Your task to perform on an android device: Open internet settings Image 0: 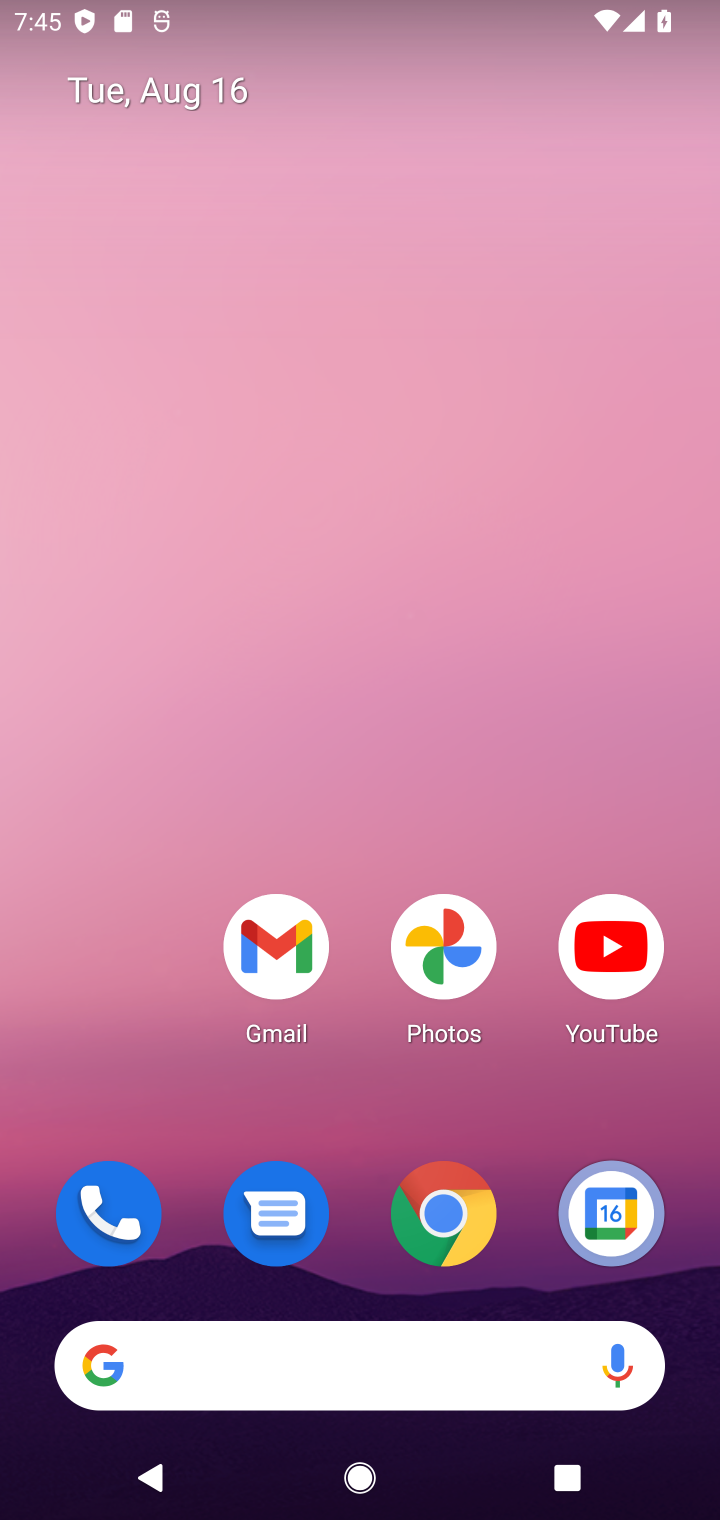
Step 0: drag from (344, 1285) to (507, 83)
Your task to perform on an android device: Open internet settings Image 1: 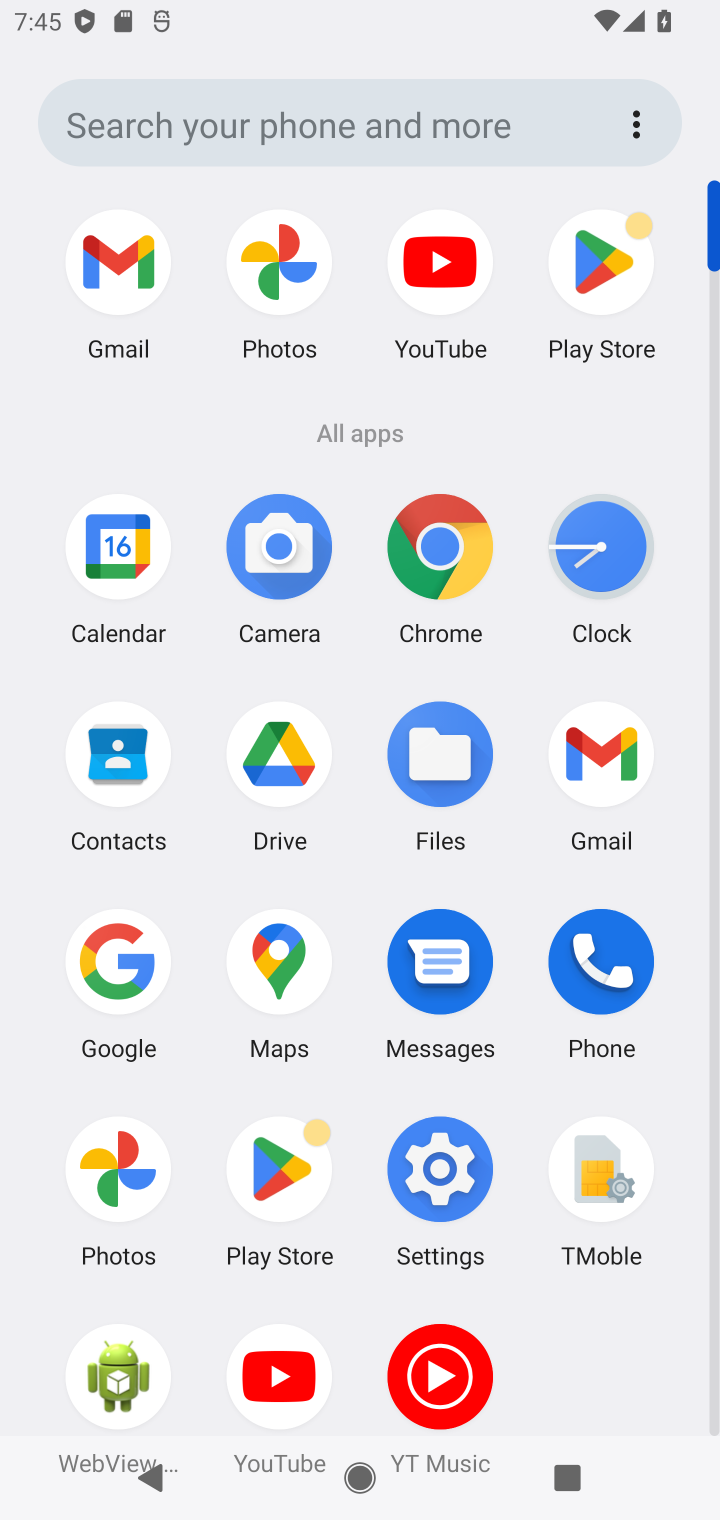
Step 1: click (438, 1157)
Your task to perform on an android device: Open internet settings Image 2: 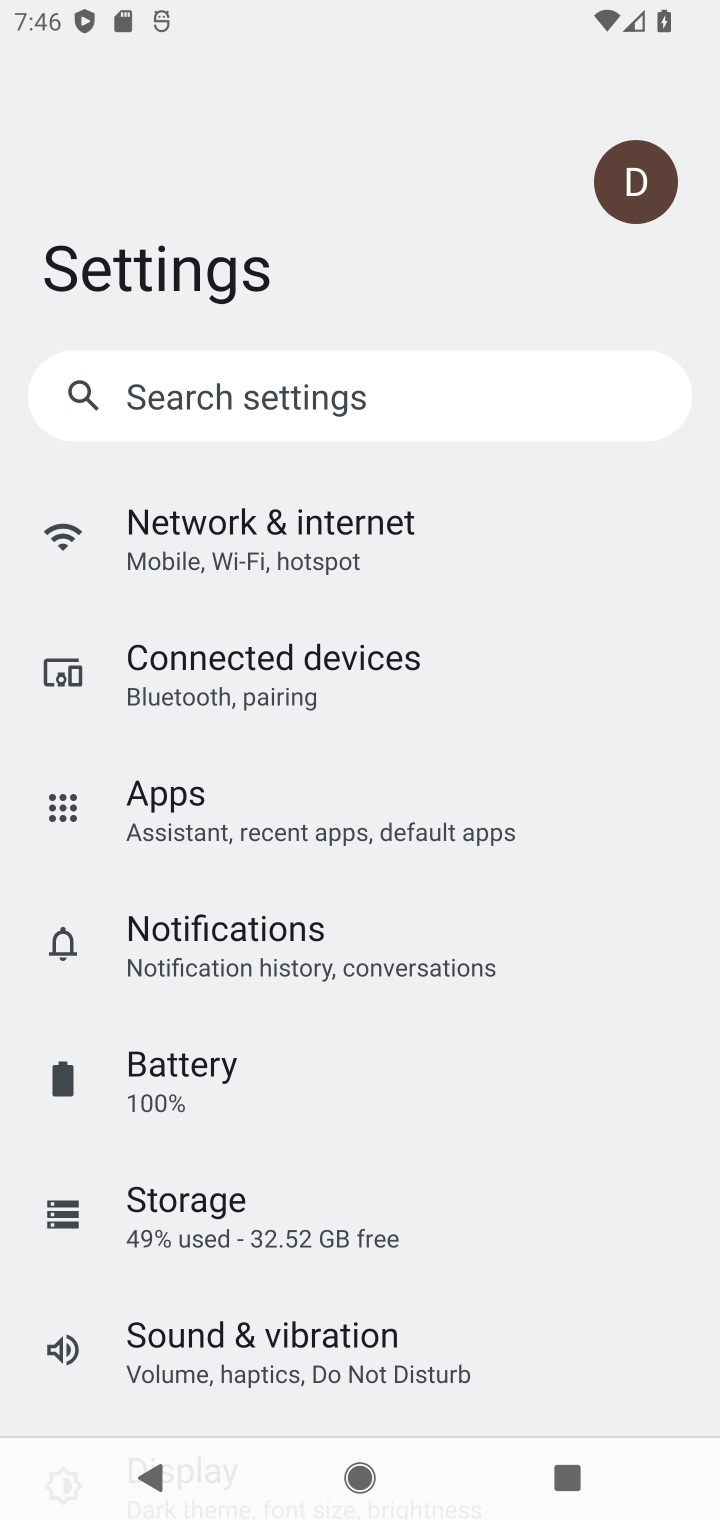
Step 2: task complete